Your task to perform on an android device: toggle data saver in the chrome app Image 0: 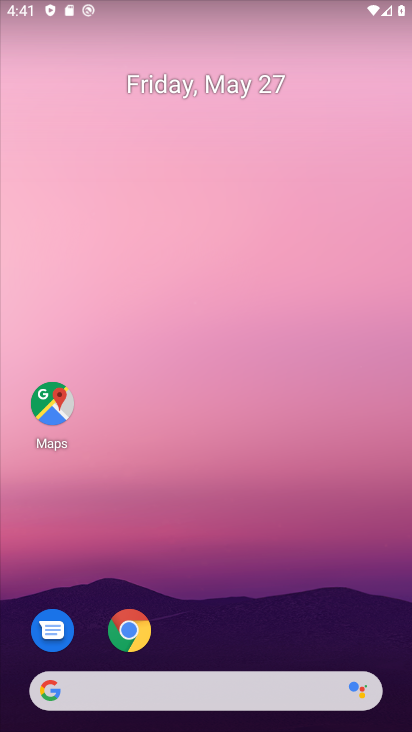
Step 0: click (139, 651)
Your task to perform on an android device: toggle data saver in the chrome app Image 1: 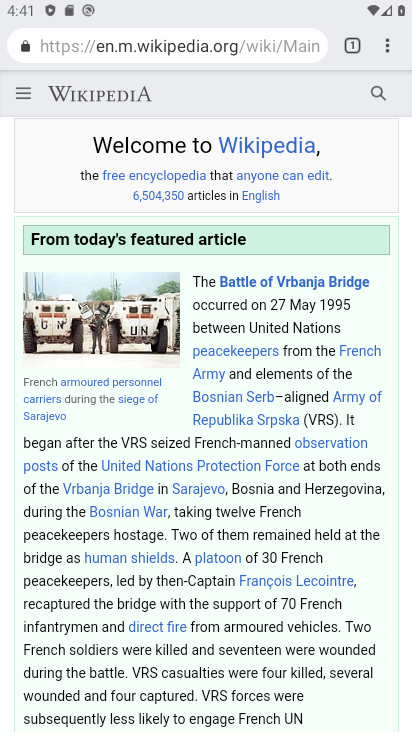
Step 1: drag from (381, 46) to (270, 533)
Your task to perform on an android device: toggle data saver in the chrome app Image 2: 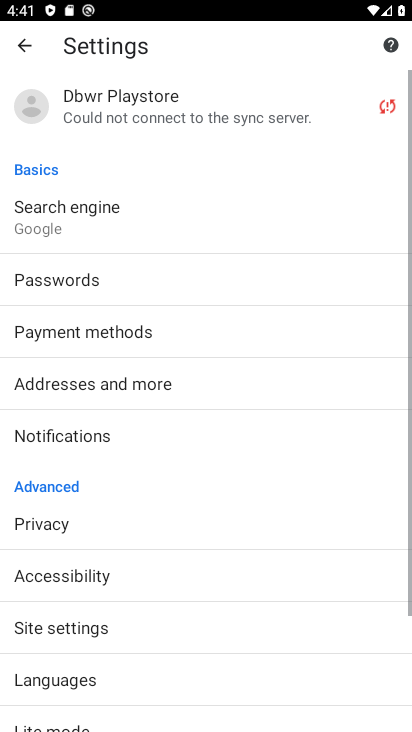
Step 2: drag from (194, 593) to (320, 260)
Your task to perform on an android device: toggle data saver in the chrome app Image 3: 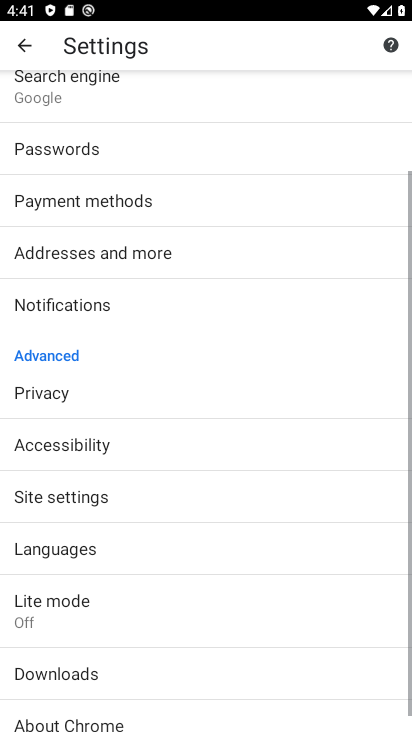
Step 3: click (112, 609)
Your task to perform on an android device: toggle data saver in the chrome app Image 4: 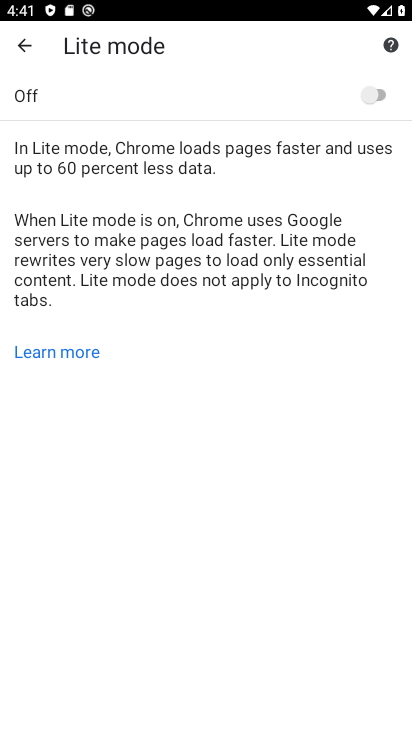
Step 4: click (398, 93)
Your task to perform on an android device: toggle data saver in the chrome app Image 5: 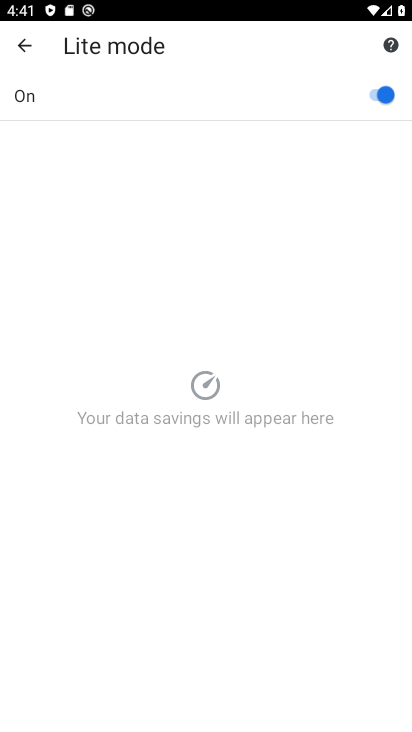
Step 5: task complete